Your task to perform on an android device: Open Google Chrome and open the bookmarks view Image 0: 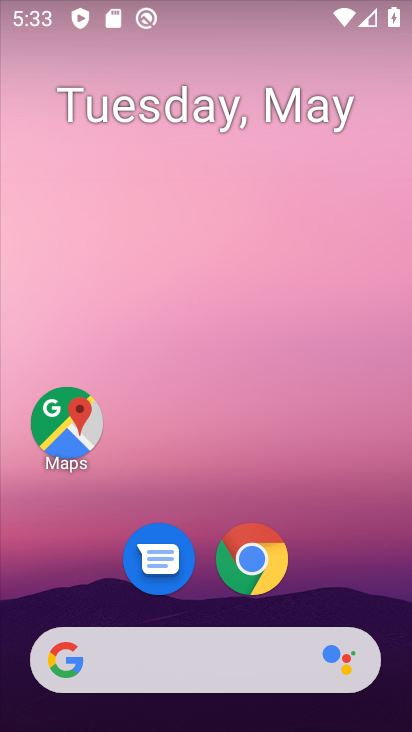
Step 0: click (237, 565)
Your task to perform on an android device: Open Google Chrome and open the bookmarks view Image 1: 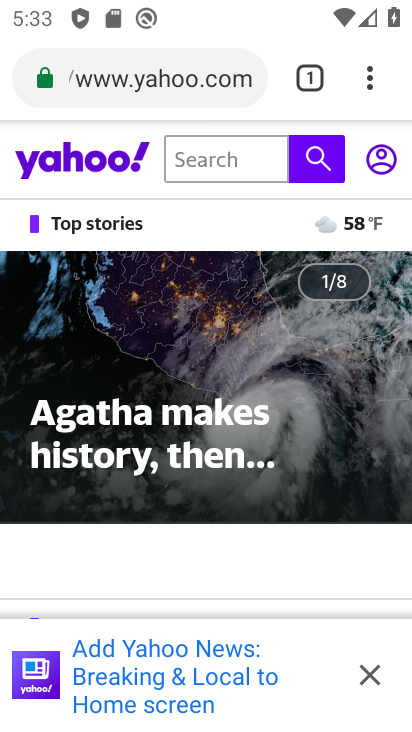
Step 1: click (364, 79)
Your task to perform on an android device: Open Google Chrome and open the bookmarks view Image 2: 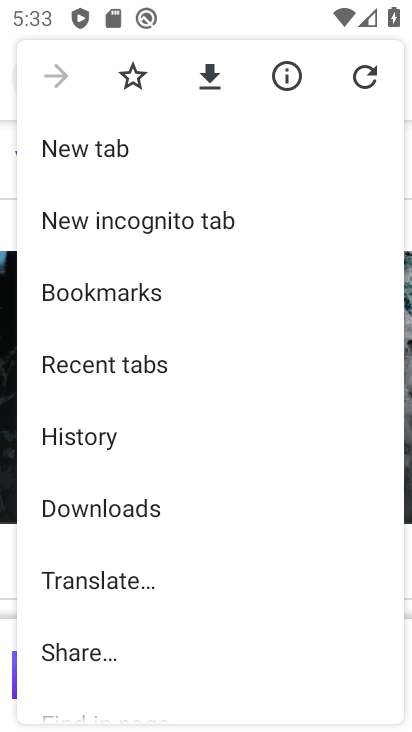
Step 2: click (114, 285)
Your task to perform on an android device: Open Google Chrome and open the bookmarks view Image 3: 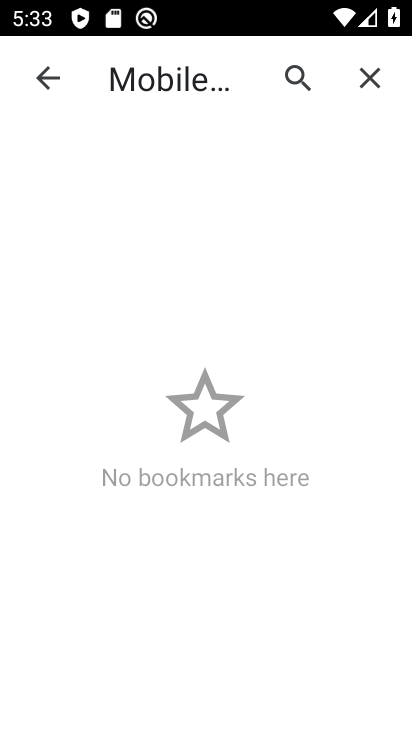
Step 3: task complete